Your task to perform on an android device: Toggle the flashlight Image 0: 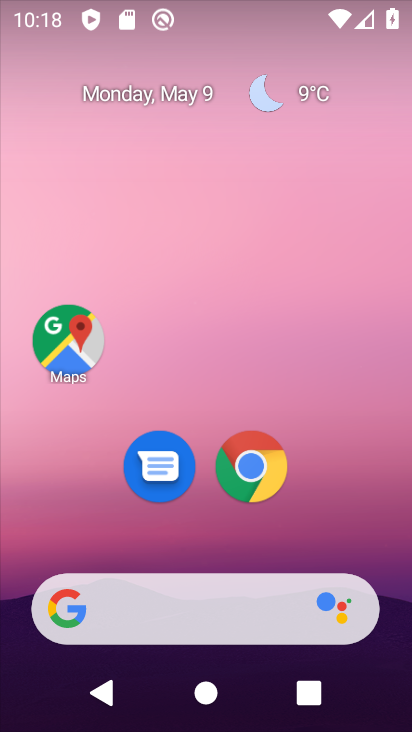
Step 0: drag from (324, 66) to (339, 523)
Your task to perform on an android device: Toggle the flashlight Image 1: 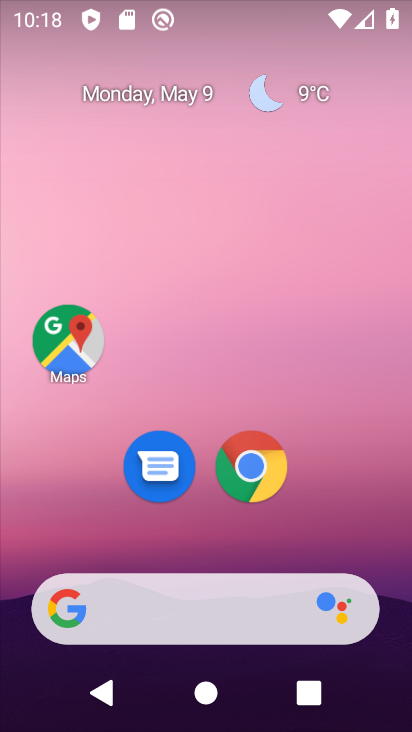
Step 1: drag from (322, 7) to (327, 485)
Your task to perform on an android device: Toggle the flashlight Image 2: 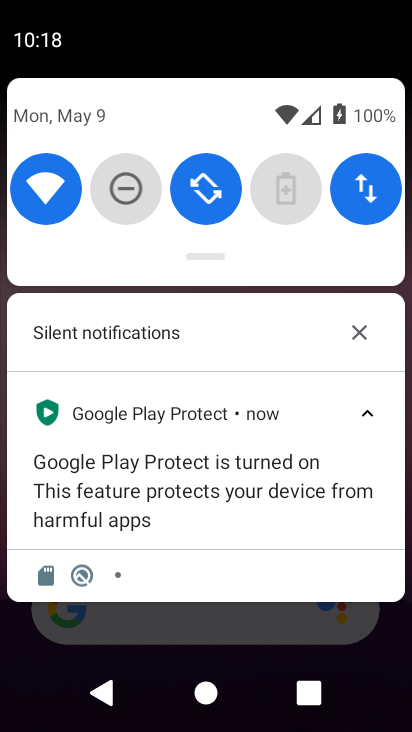
Step 2: drag from (244, 275) to (264, 481)
Your task to perform on an android device: Toggle the flashlight Image 3: 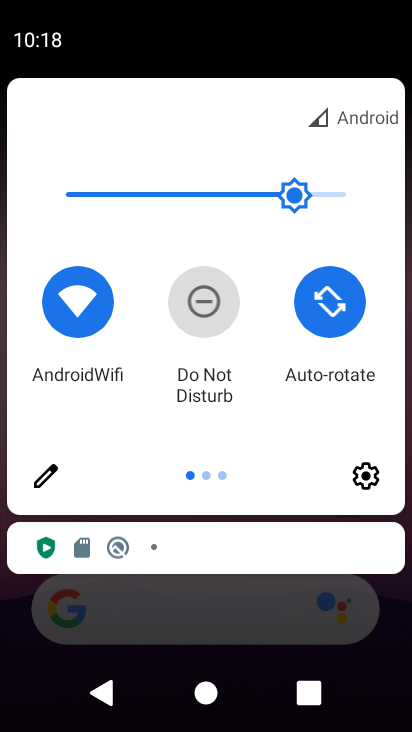
Step 3: drag from (324, 304) to (10, 315)
Your task to perform on an android device: Toggle the flashlight Image 4: 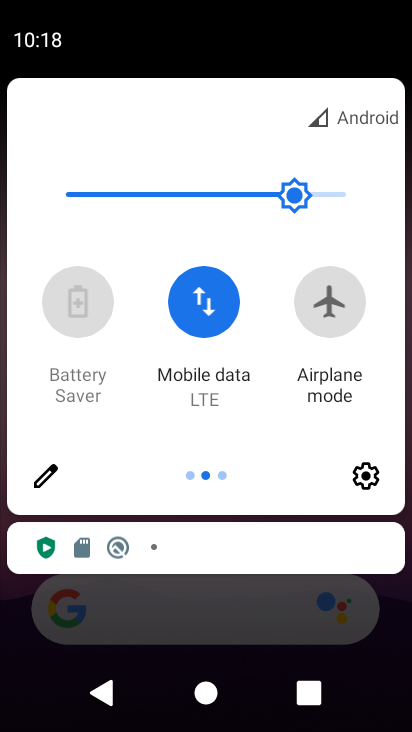
Step 4: click (45, 473)
Your task to perform on an android device: Toggle the flashlight Image 5: 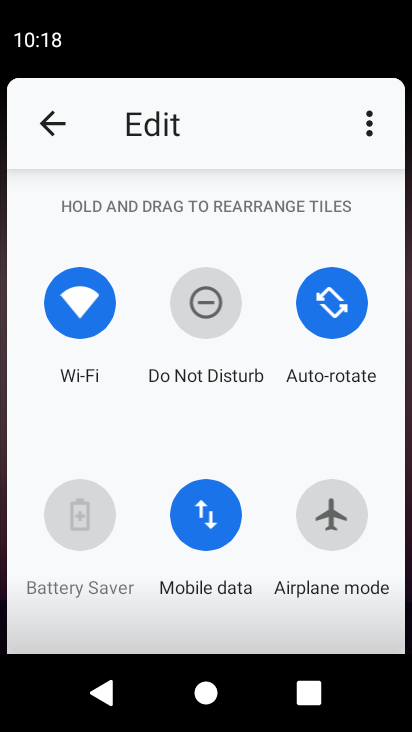
Step 5: task complete